Your task to perform on an android device: Search for vegetarian restaurants on Maps Image 0: 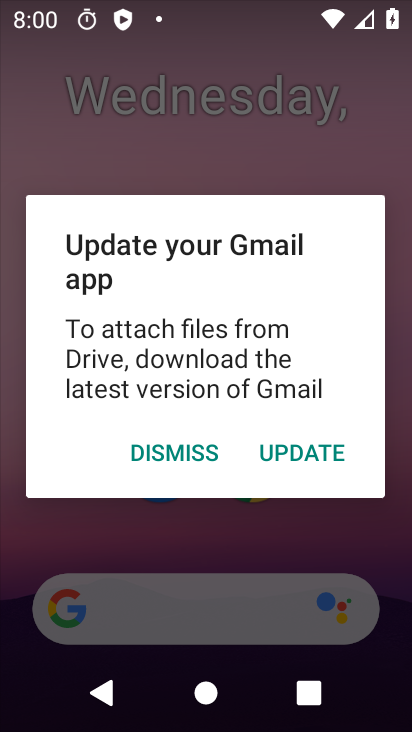
Step 0: press home button
Your task to perform on an android device: Search for vegetarian restaurants on Maps Image 1: 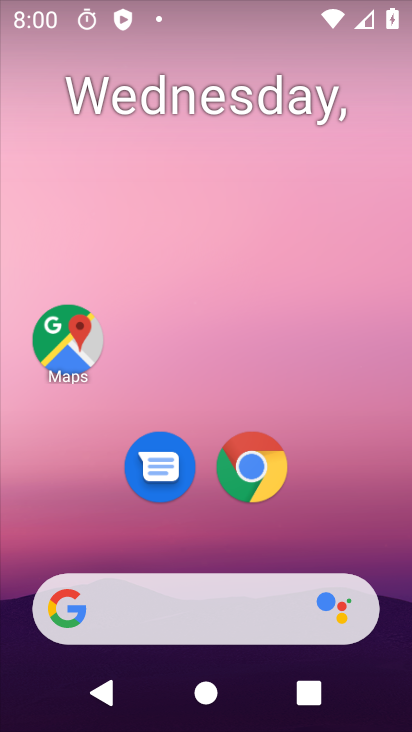
Step 1: click (73, 341)
Your task to perform on an android device: Search for vegetarian restaurants on Maps Image 2: 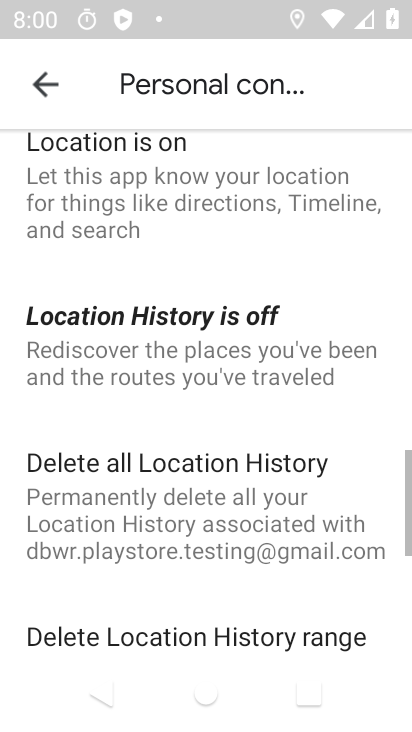
Step 2: click (45, 78)
Your task to perform on an android device: Search for vegetarian restaurants on Maps Image 3: 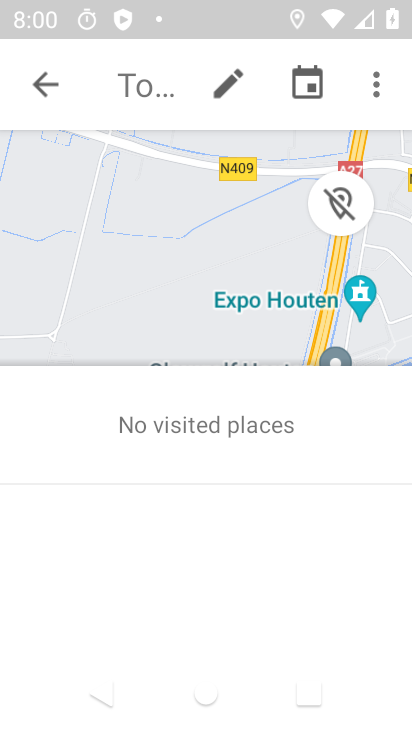
Step 3: click (157, 80)
Your task to perform on an android device: Search for vegetarian restaurants on Maps Image 4: 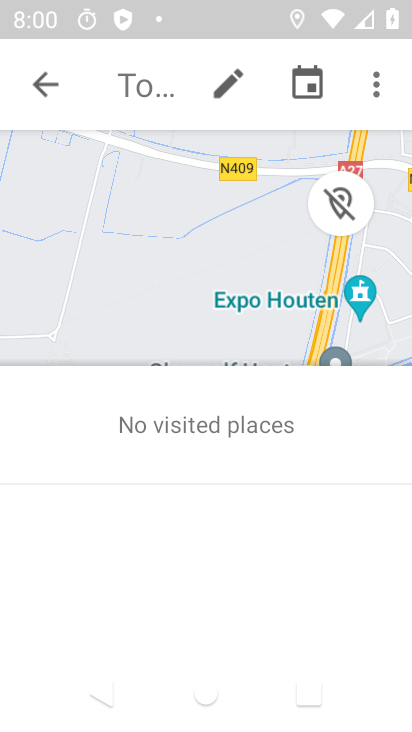
Step 4: click (43, 82)
Your task to perform on an android device: Search for vegetarian restaurants on Maps Image 5: 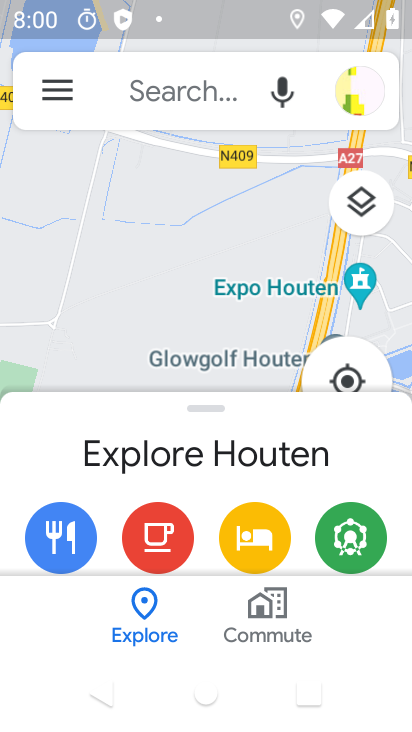
Step 5: click (138, 95)
Your task to perform on an android device: Search for vegetarian restaurants on Maps Image 6: 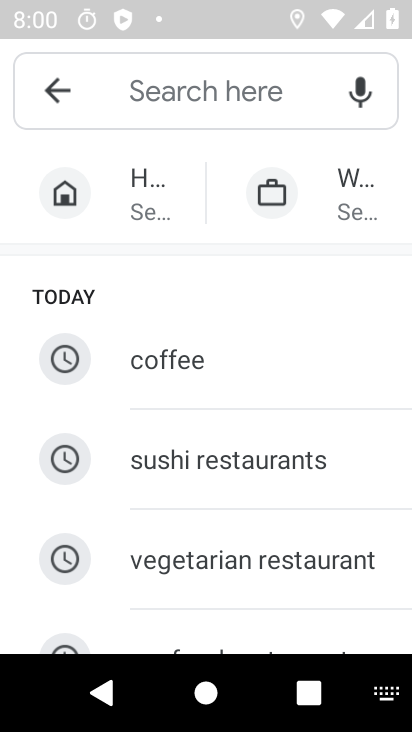
Step 6: type "vegetarian restaurants "
Your task to perform on an android device: Search for vegetarian restaurants on Maps Image 7: 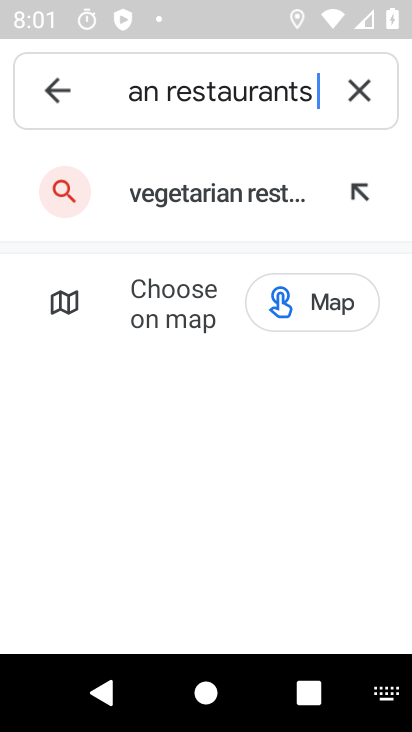
Step 7: click (234, 192)
Your task to perform on an android device: Search for vegetarian restaurants on Maps Image 8: 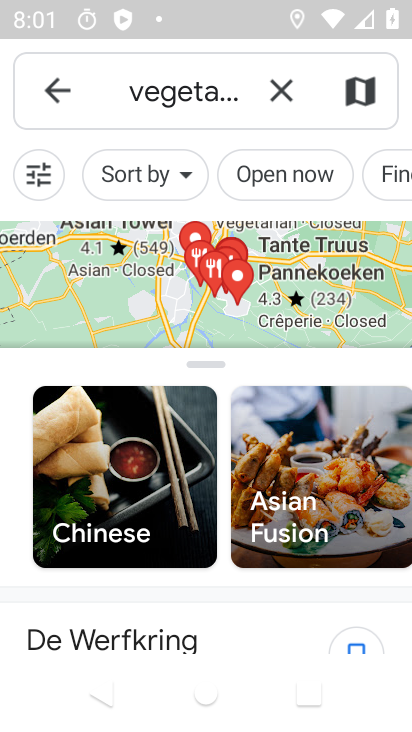
Step 8: task complete